Your task to perform on an android device: Turn on the flashlight Image 0: 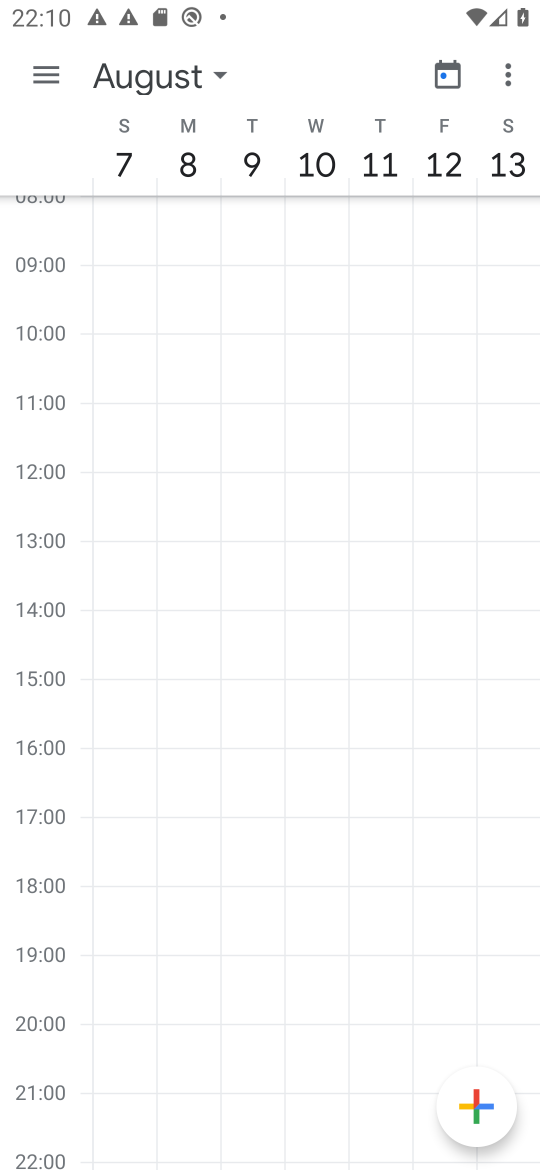
Step 0: press home button
Your task to perform on an android device: Turn on the flashlight Image 1: 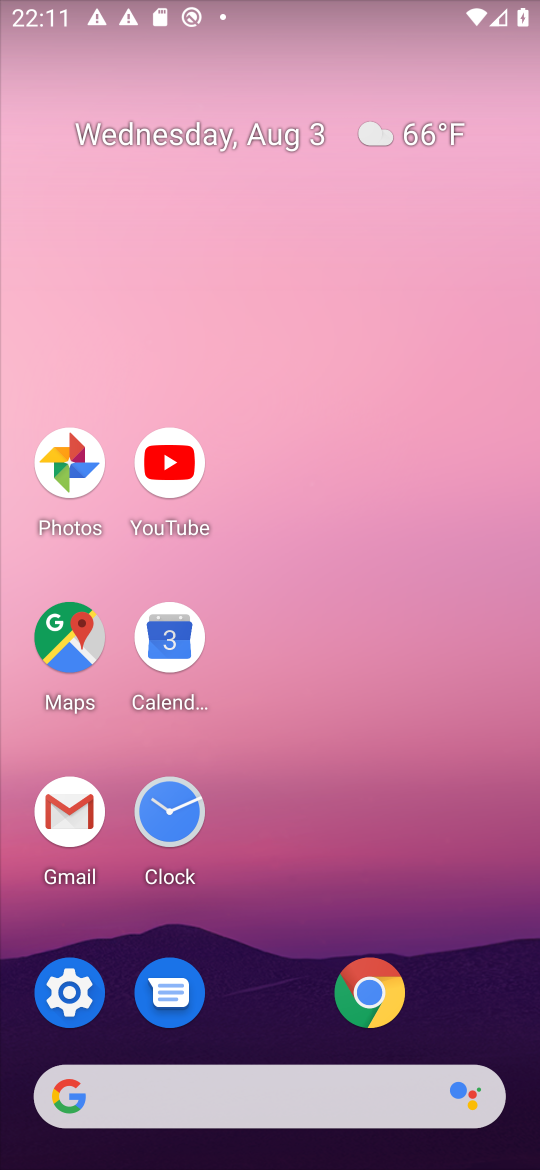
Step 1: click (60, 986)
Your task to perform on an android device: Turn on the flashlight Image 2: 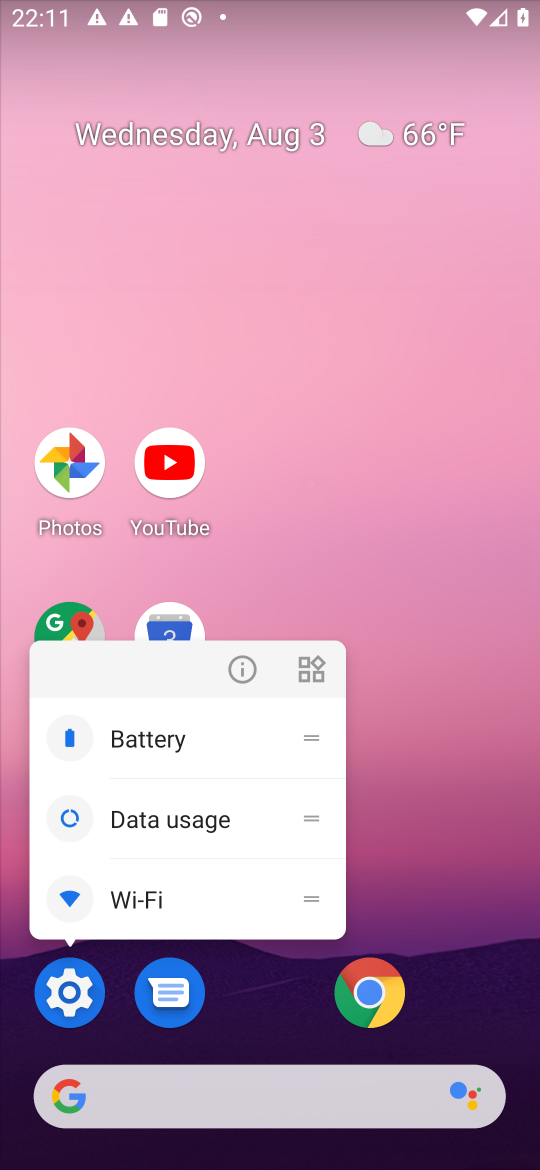
Step 2: click (340, 520)
Your task to perform on an android device: Turn on the flashlight Image 3: 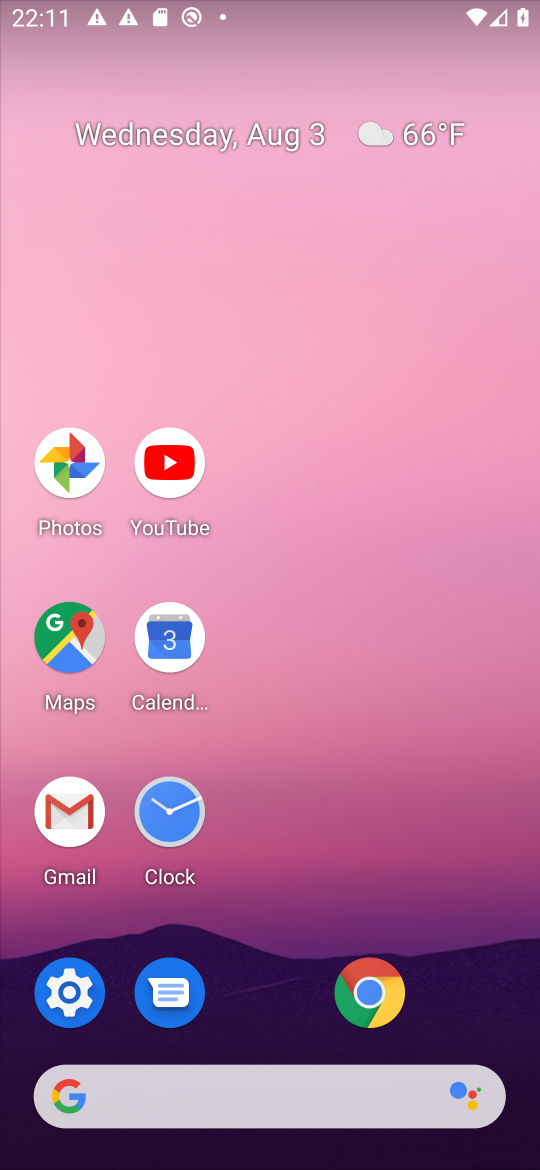
Step 3: click (71, 987)
Your task to perform on an android device: Turn on the flashlight Image 4: 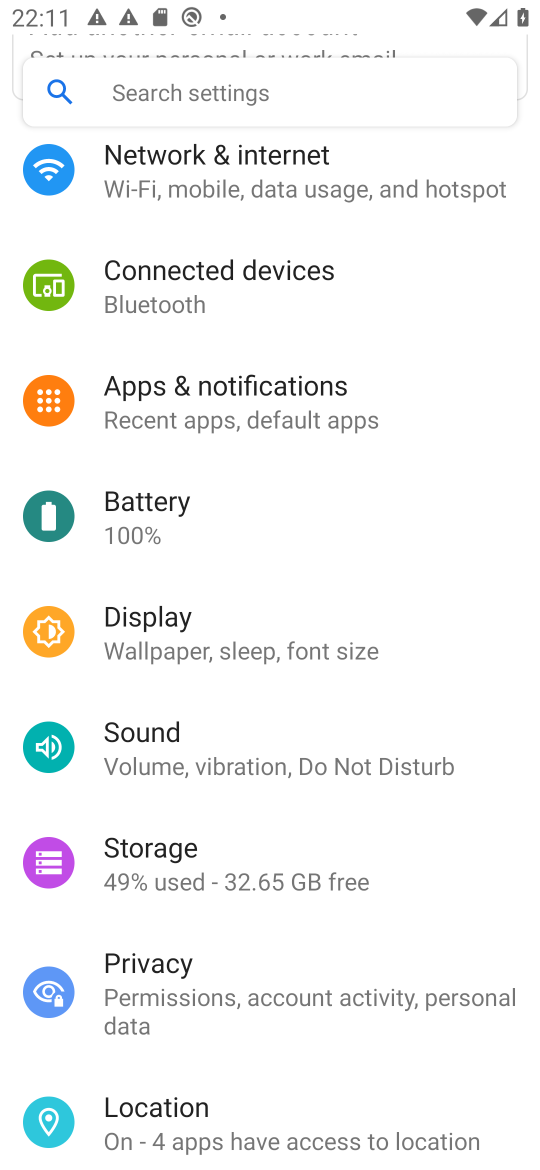
Step 4: click (142, 642)
Your task to perform on an android device: Turn on the flashlight Image 5: 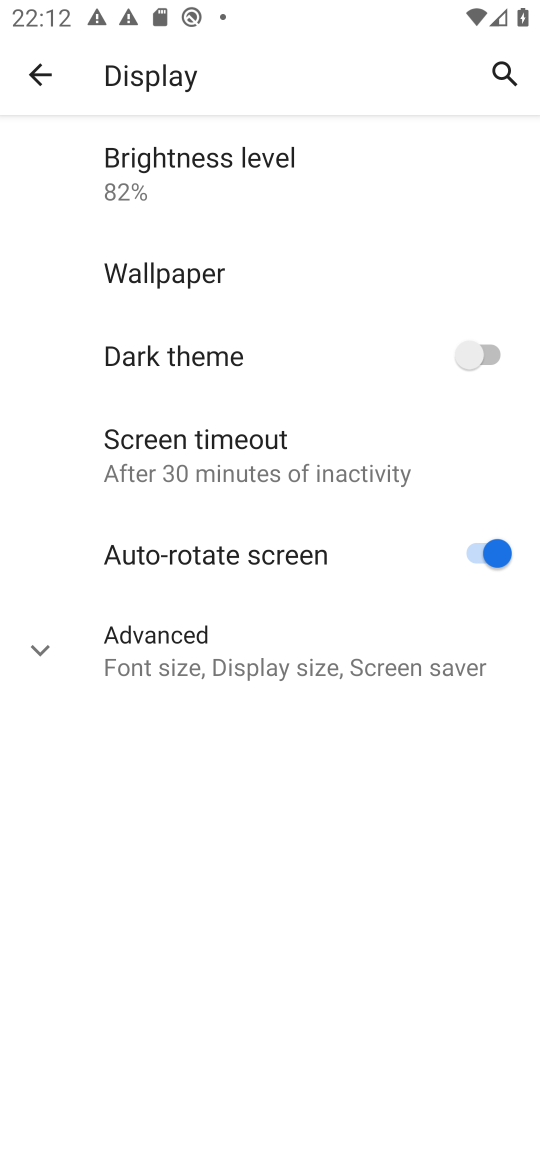
Step 5: click (191, 314)
Your task to perform on an android device: Turn on the flashlight Image 6: 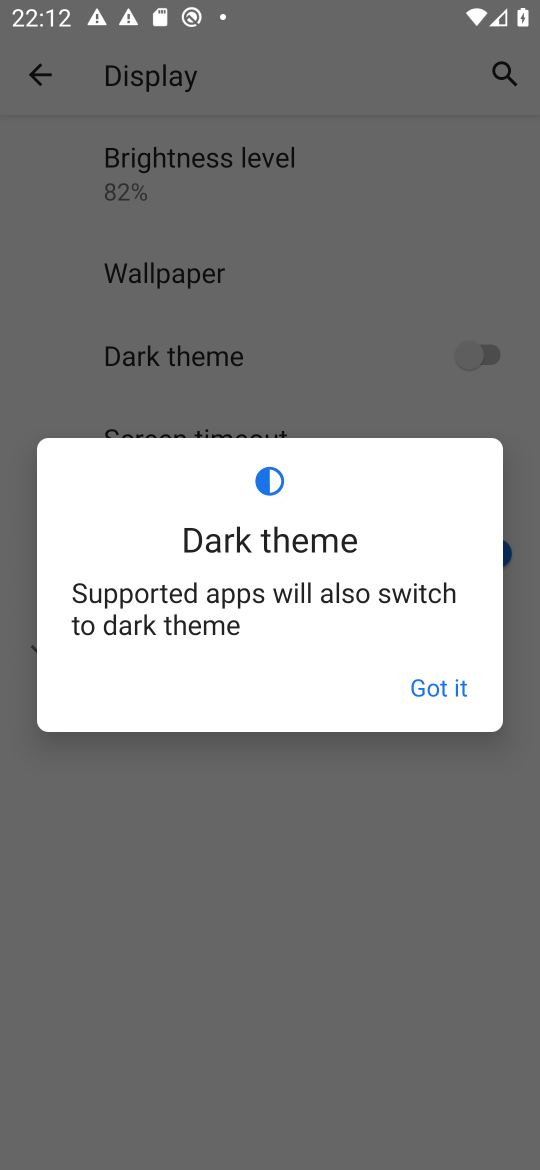
Step 6: click (442, 684)
Your task to perform on an android device: Turn on the flashlight Image 7: 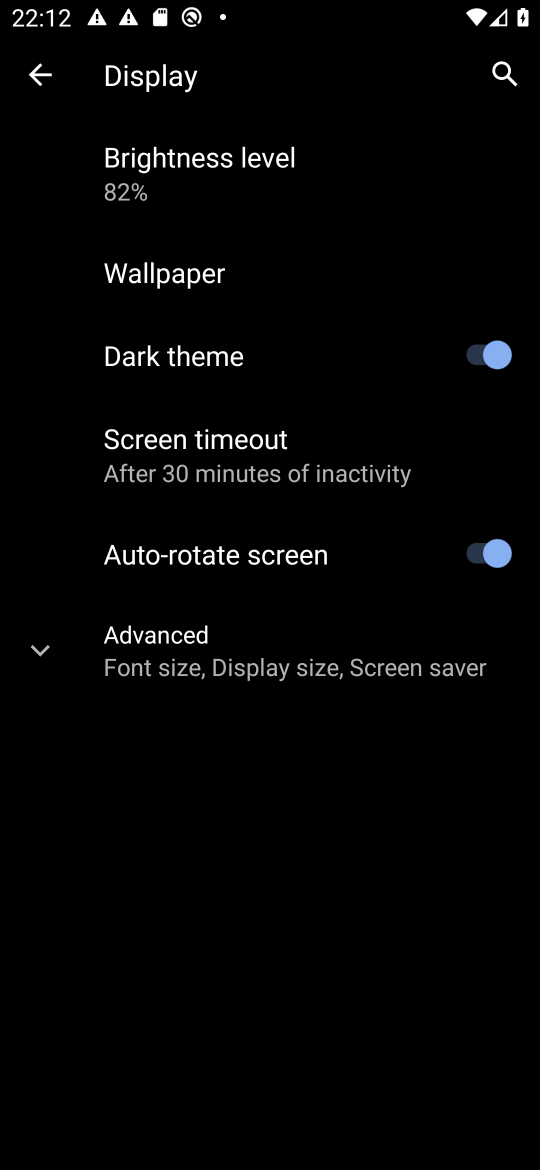
Step 7: click (42, 85)
Your task to perform on an android device: Turn on the flashlight Image 8: 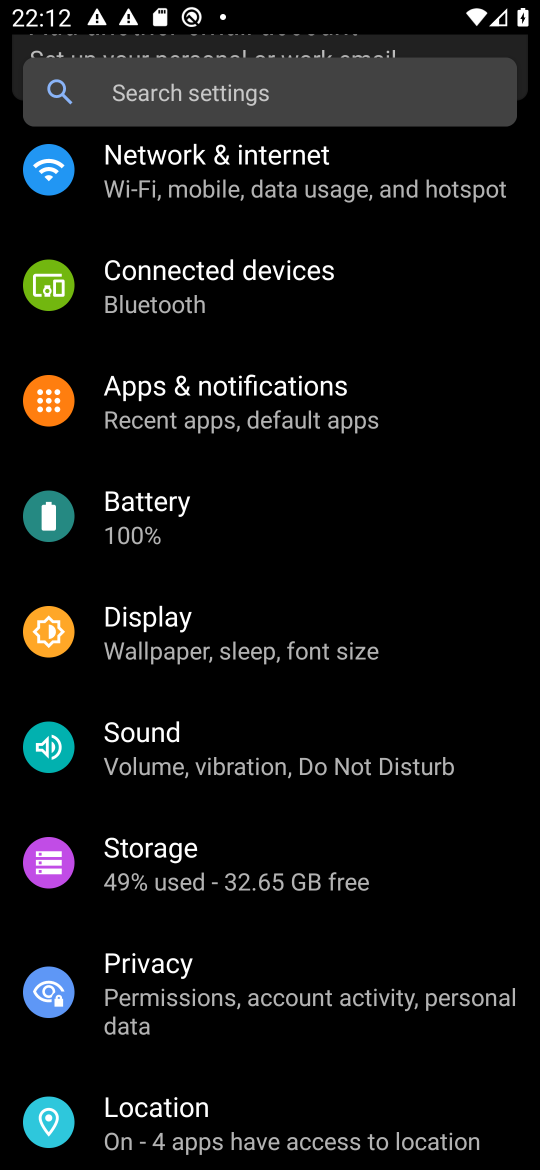
Step 8: click (152, 633)
Your task to perform on an android device: Turn on the flashlight Image 9: 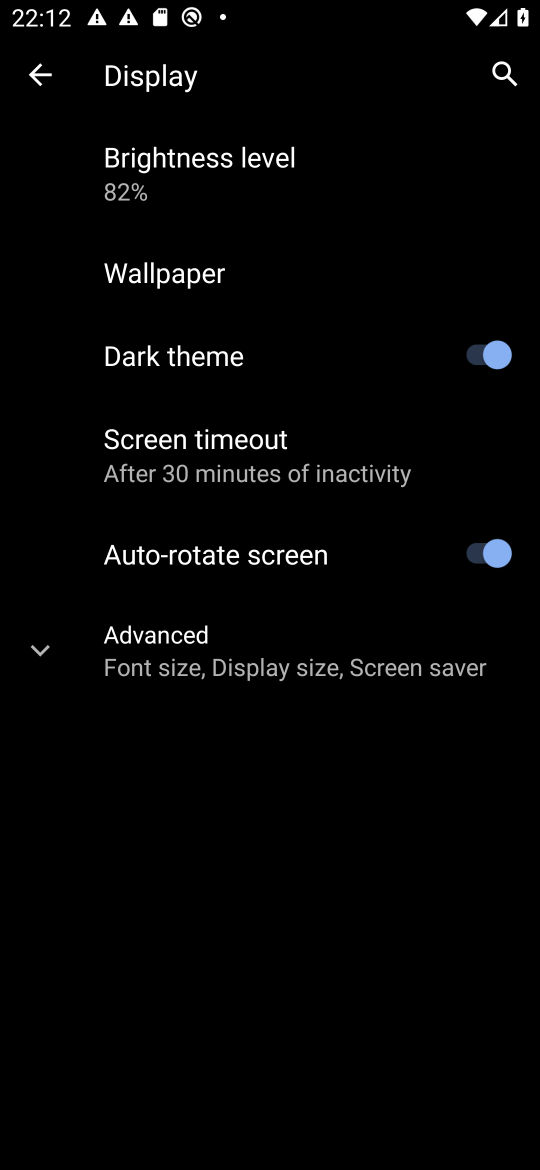
Step 9: task complete